Your task to perform on an android device: check storage Image 0: 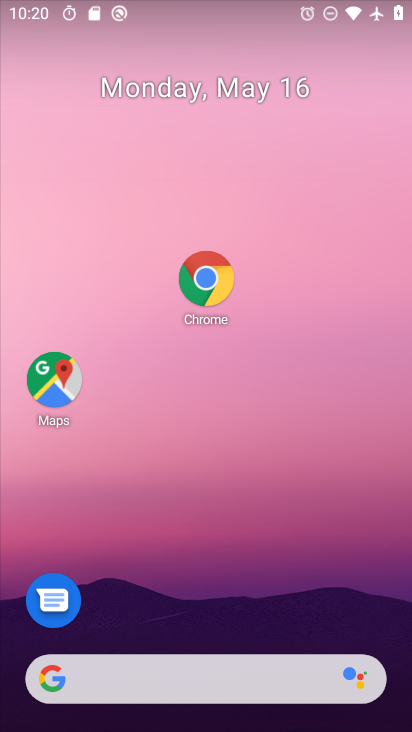
Step 0: drag from (179, 676) to (347, 131)
Your task to perform on an android device: check storage Image 1: 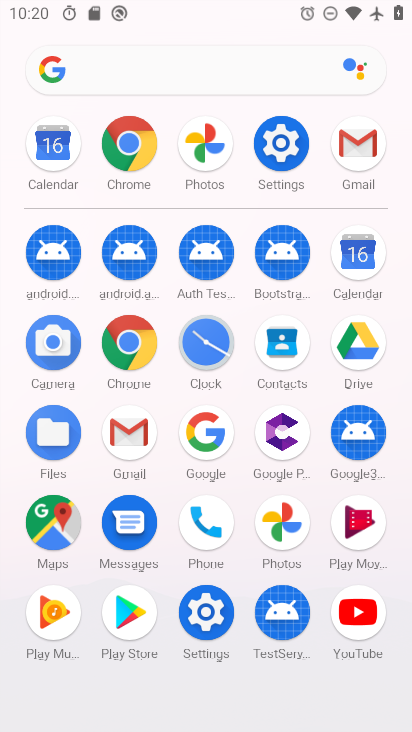
Step 1: click (291, 153)
Your task to perform on an android device: check storage Image 2: 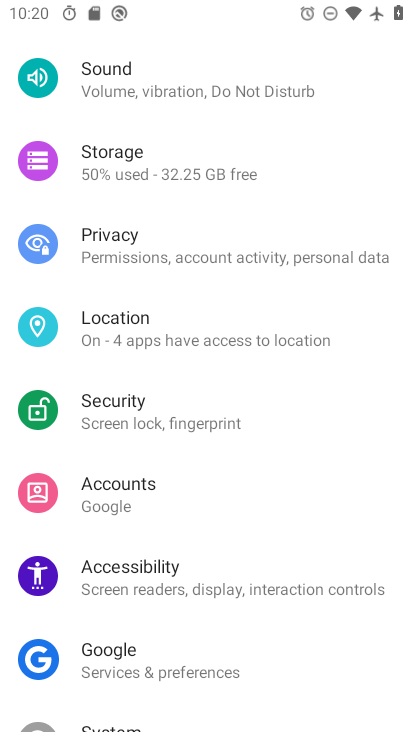
Step 2: click (178, 178)
Your task to perform on an android device: check storage Image 3: 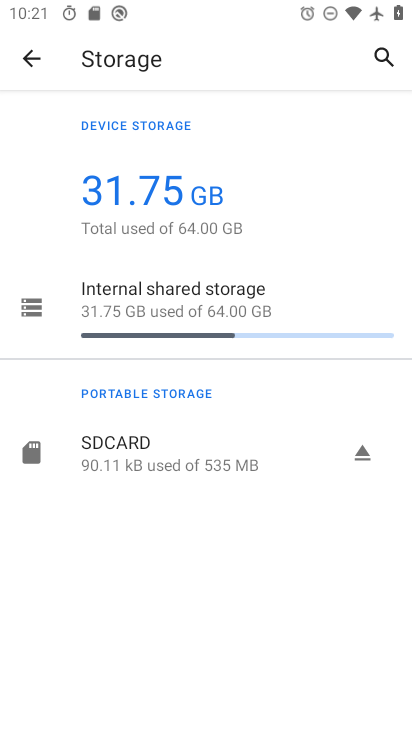
Step 3: task complete